Your task to perform on an android device: toggle improve location accuracy Image 0: 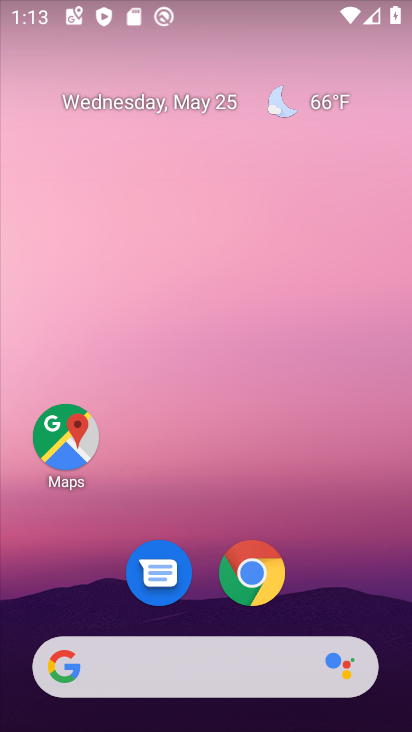
Step 0: drag from (387, 635) to (290, 83)
Your task to perform on an android device: toggle improve location accuracy Image 1: 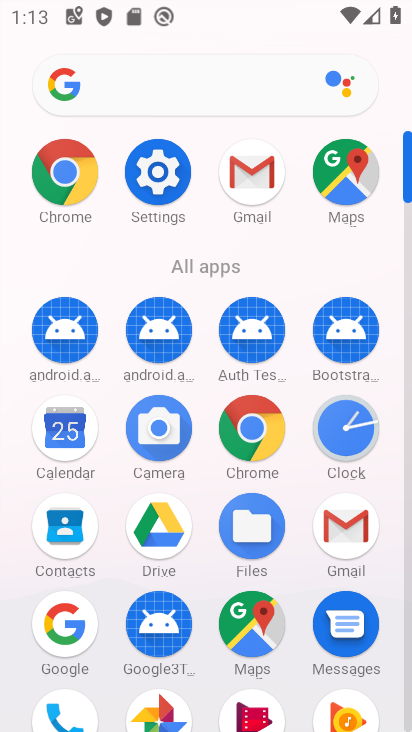
Step 1: click (404, 679)
Your task to perform on an android device: toggle improve location accuracy Image 2: 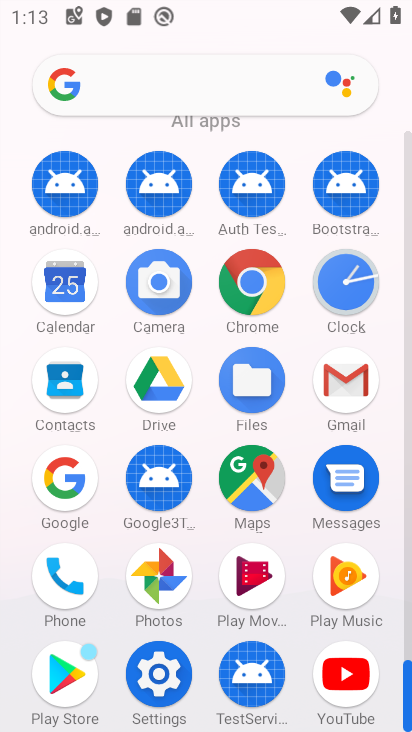
Step 2: click (161, 676)
Your task to perform on an android device: toggle improve location accuracy Image 3: 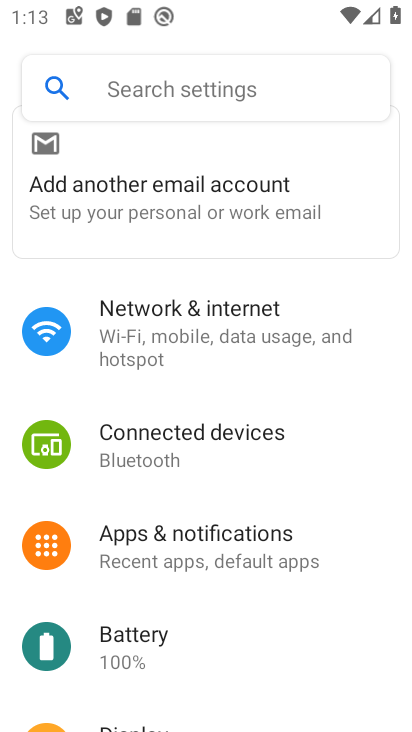
Step 3: drag from (325, 635) to (337, 241)
Your task to perform on an android device: toggle improve location accuracy Image 4: 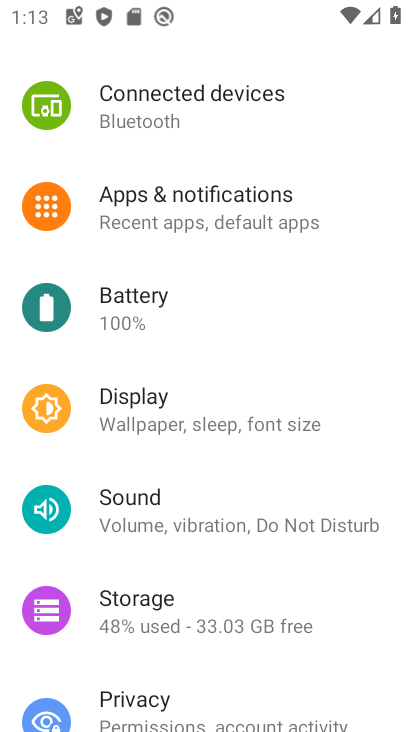
Step 4: drag from (348, 628) to (304, 210)
Your task to perform on an android device: toggle improve location accuracy Image 5: 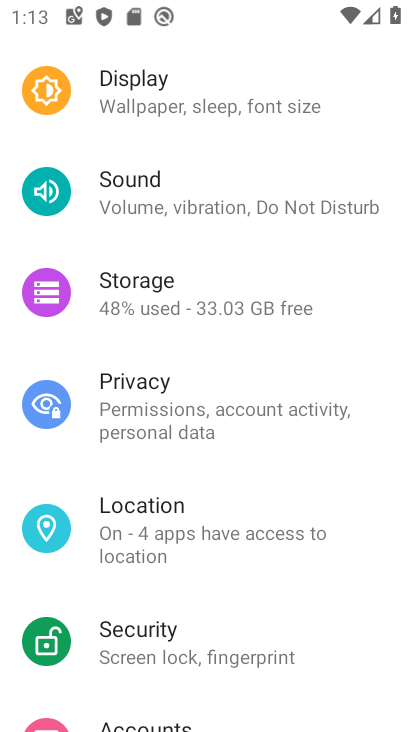
Step 5: click (187, 515)
Your task to perform on an android device: toggle improve location accuracy Image 6: 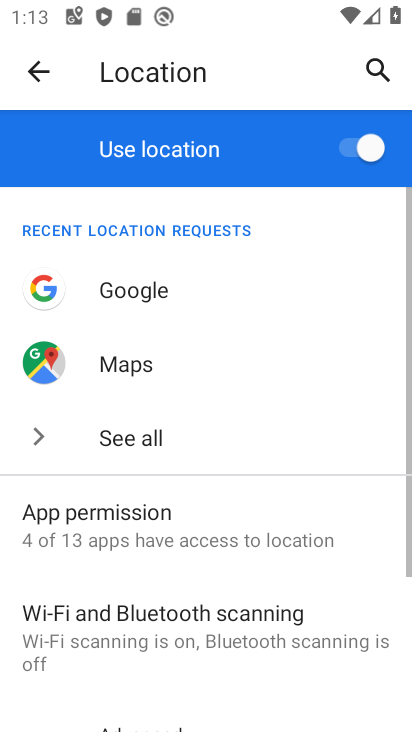
Step 6: drag from (264, 643) to (265, 304)
Your task to perform on an android device: toggle improve location accuracy Image 7: 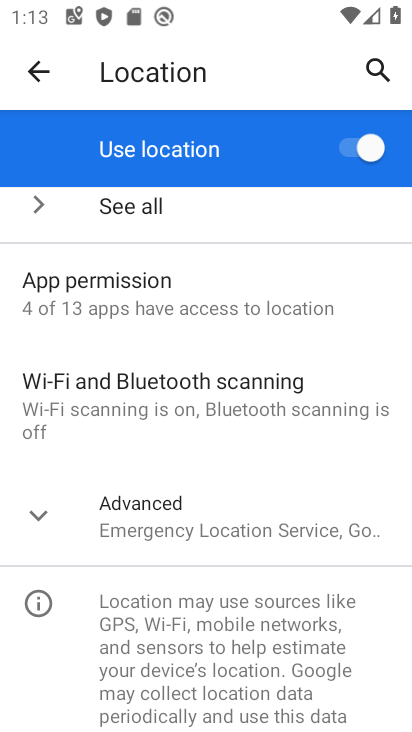
Step 7: click (37, 514)
Your task to perform on an android device: toggle improve location accuracy Image 8: 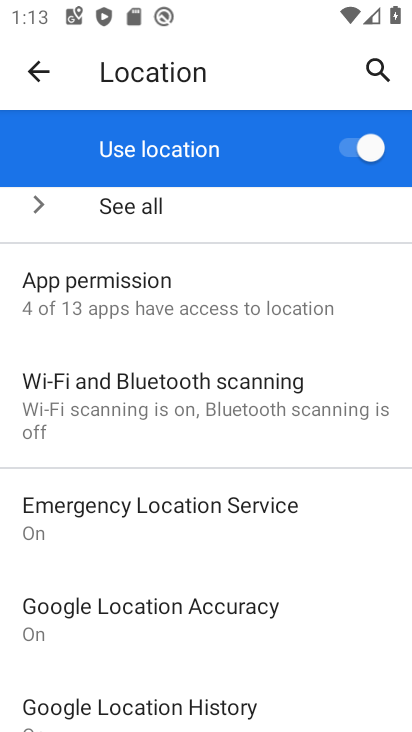
Step 8: click (154, 605)
Your task to perform on an android device: toggle improve location accuracy Image 9: 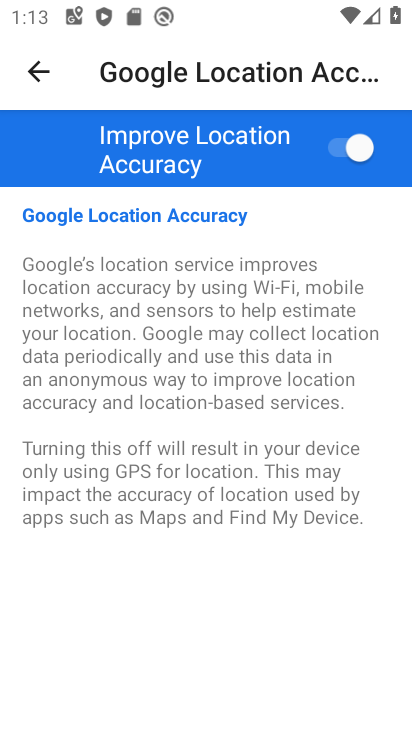
Step 9: click (337, 144)
Your task to perform on an android device: toggle improve location accuracy Image 10: 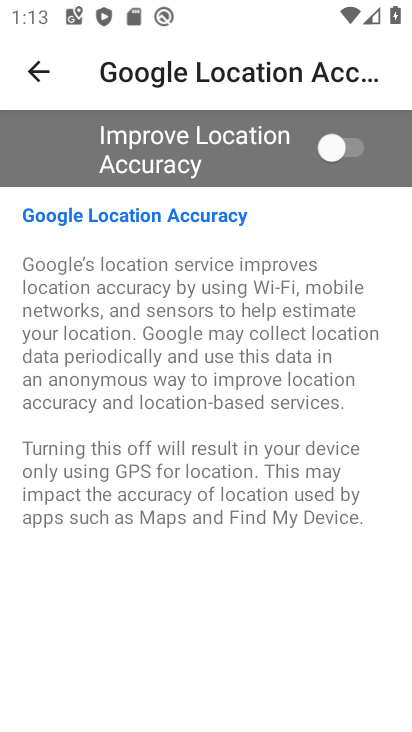
Step 10: task complete